Your task to perform on an android device: Go to Google Image 0: 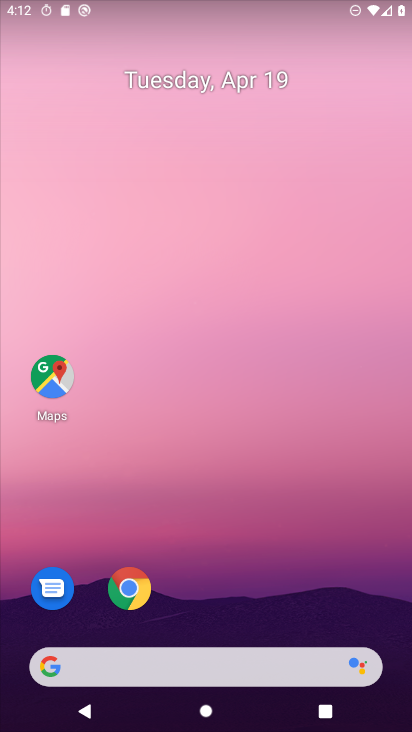
Step 0: drag from (213, 585) to (232, 101)
Your task to perform on an android device: Go to Google Image 1: 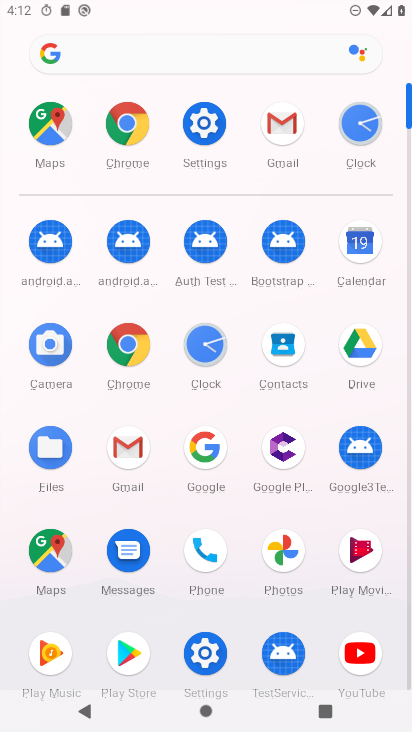
Step 1: click (199, 443)
Your task to perform on an android device: Go to Google Image 2: 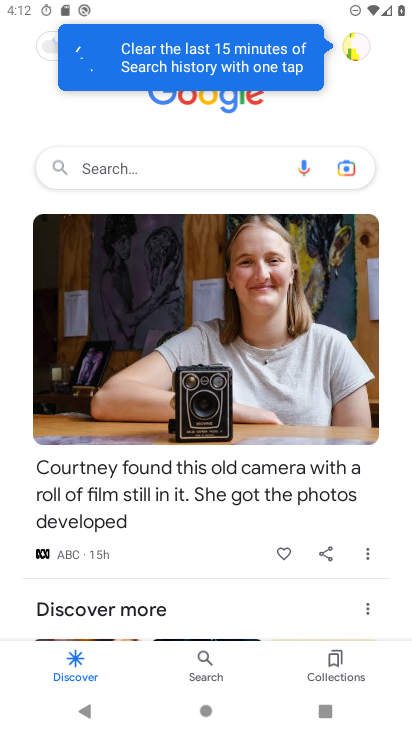
Step 2: task complete